Your task to perform on an android device: make emails show in primary in the gmail app Image 0: 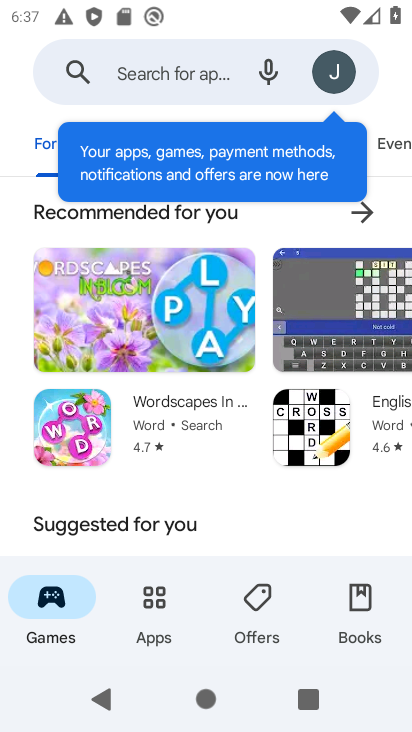
Step 0: press home button
Your task to perform on an android device: make emails show in primary in the gmail app Image 1: 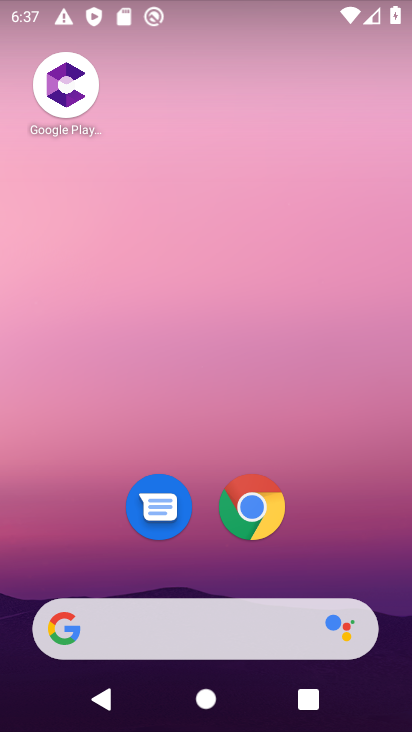
Step 1: drag from (381, 566) to (232, 41)
Your task to perform on an android device: make emails show in primary in the gmail app Image 2: 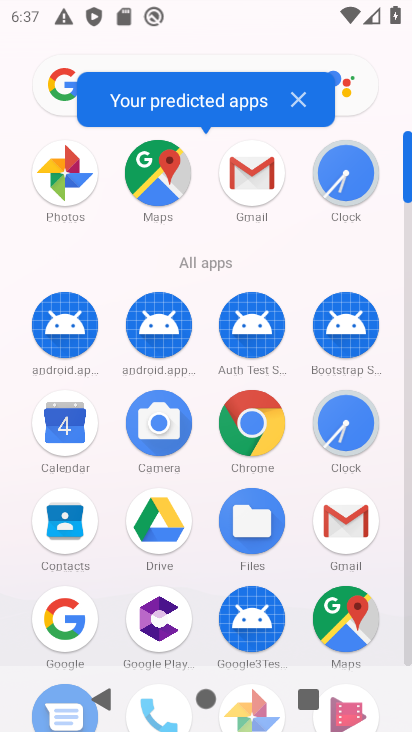
Step 2: click (337, 515)
Your task to perform on an android device: make emails show in primary in the gmail app Image 3: 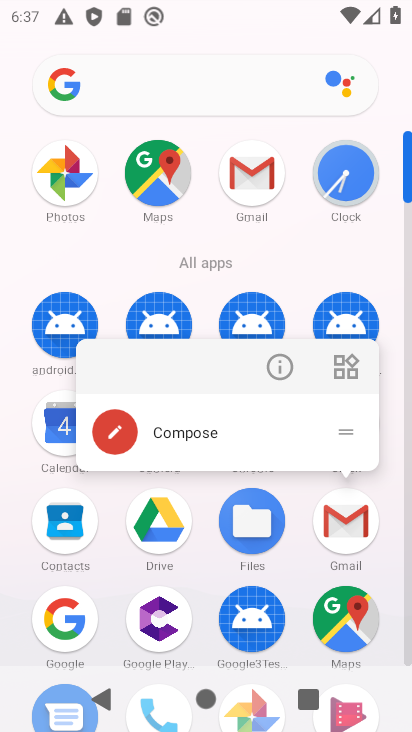
Step 3: click (337, 515)
Your task to perform on an android device: make emails show in primary in the gmail app Image 4: 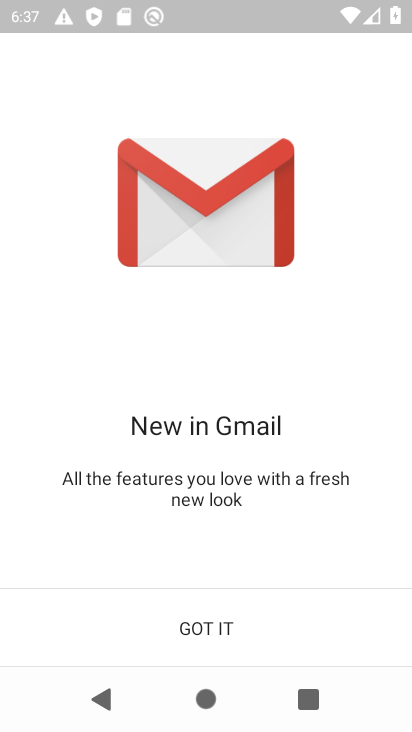
Step 4: click (236, 637)
Your task to perform on an android device: make emails show in primary in the gmail app Image 5: 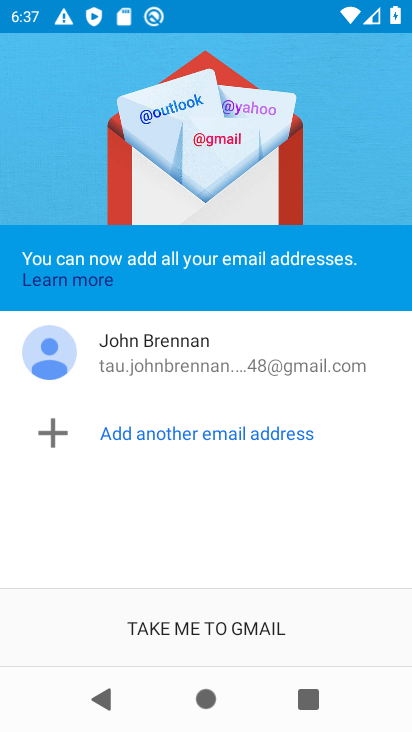
Step 5: click (236, 637)
Your task to perform on an android device: make emails show in primary in the gmail app Image 6: 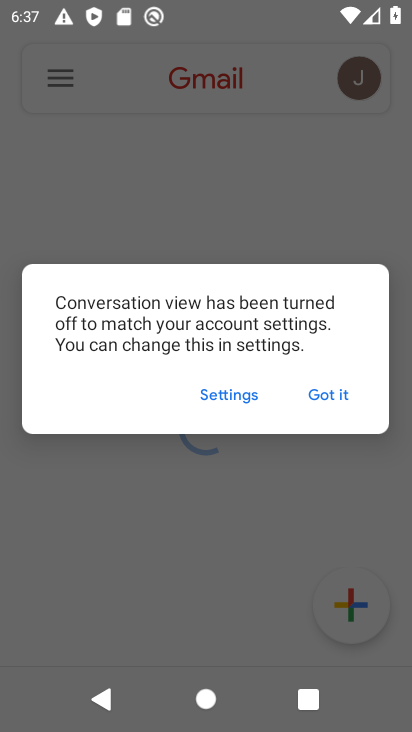
Step 6: task complete